Your task to perform on an android device: install app "Nova Launcher" Image 0: 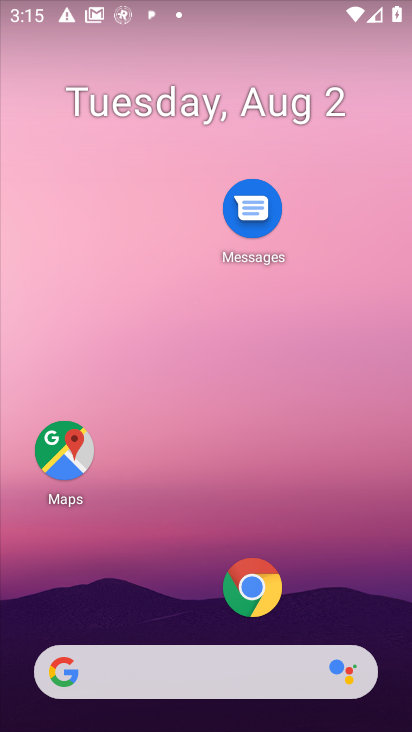
Step 0: drag from (183, 597) to (192, 260)
Your task to perform on an android device: install app "Nova Launcher" Image 1: 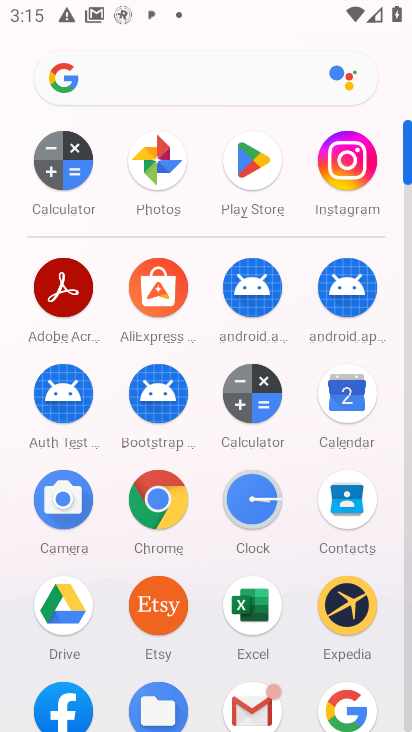
Step 1: click (250, 186)
Your task to perform on an android device: install app "Nova Launcher" Image 2: 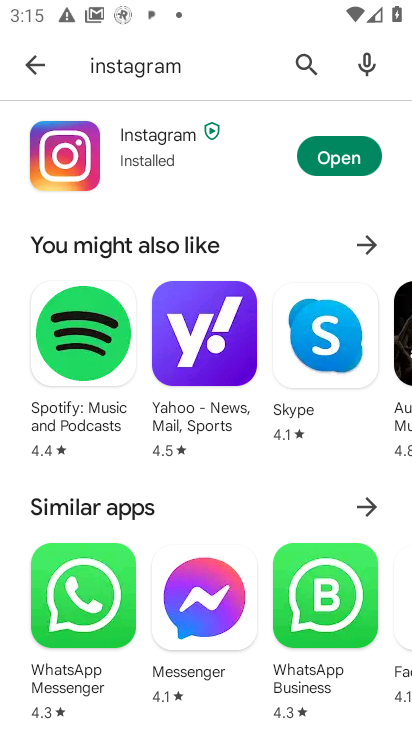
Step 2: click (313, 59)
Your task to perform on an android device: install app "Nova Launcher" Image 3: 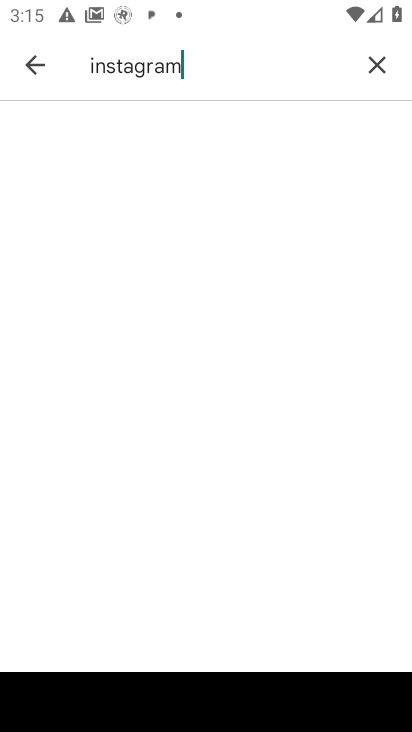
Step 3: click (364, 54)
Your task to perform on an android device: install app "Nova Launcher" Image 4: 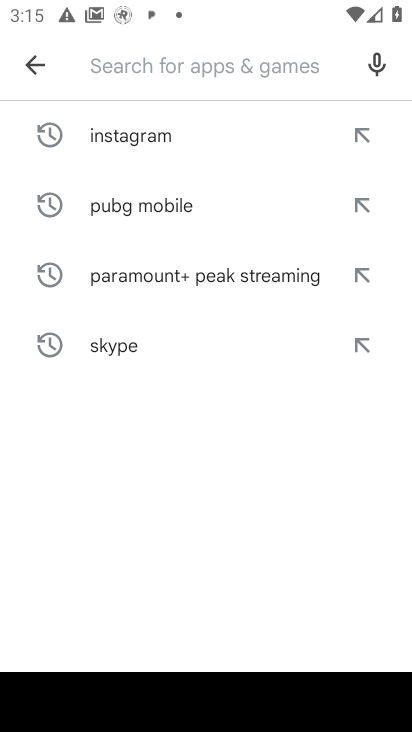
Step 4: type "Nova Launcher"
Your task to perform on an android device: install app "Nova Launcher" Image 5: 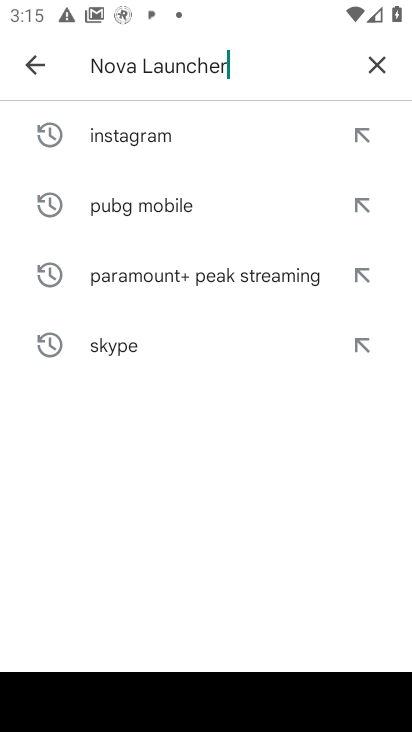
Step 5: type ""
Your task to perform on an android device: install app "Nova Launcher" Image 6: 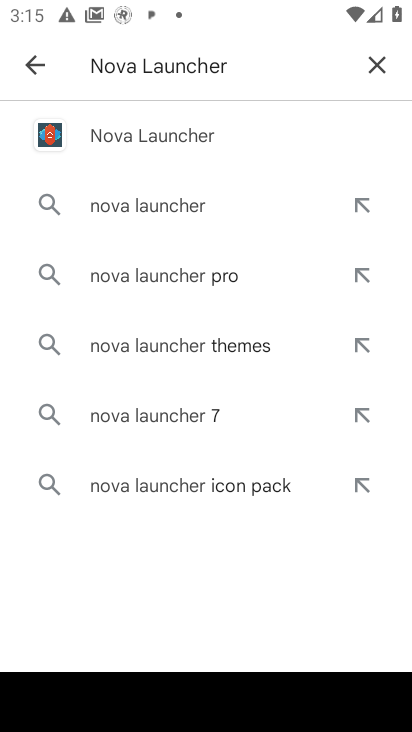
Step 6: click (219, 134)
Your task to perform on an android device: install app "Nova Launcher" Image 7: 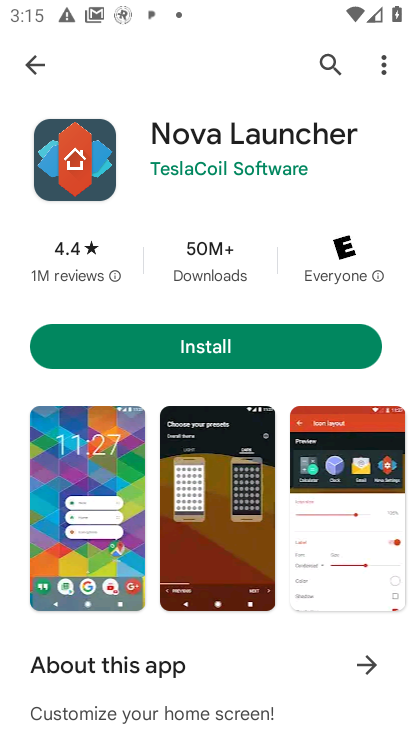
Step 7: click (262, 342)
Your task to perform on an android device: install app "Nova Launcher" Image 8: 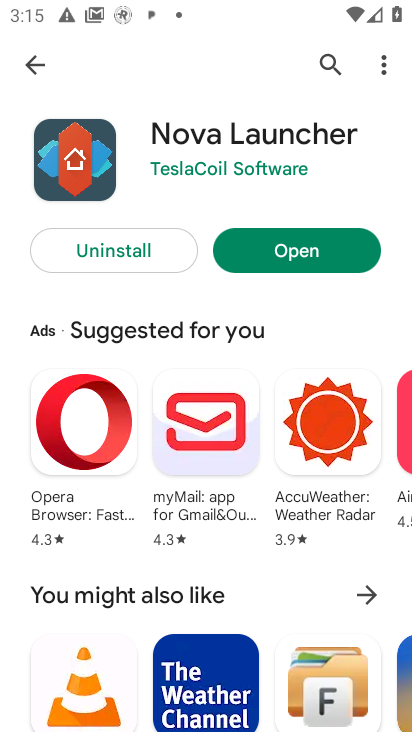
Step 8: task complete